Your task to perform on an android device: Show me popular games on the Play Store Image 0: 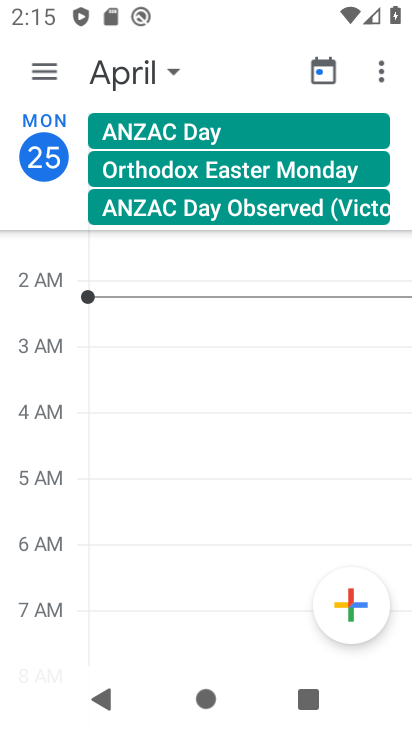
Step 0: press home button
Your task to perform on an android device: Show me popular games on the Play Store Image 1: 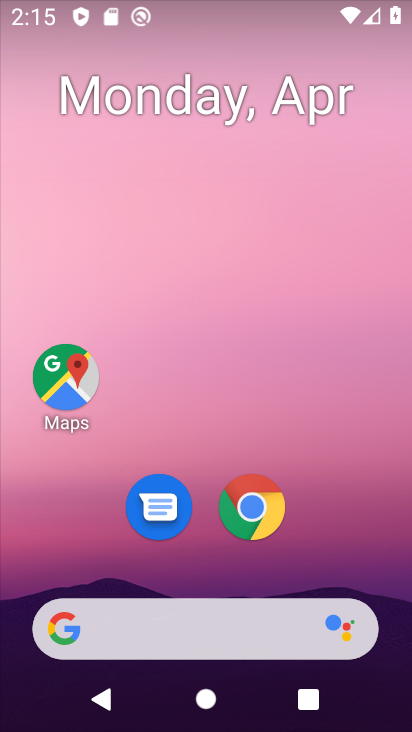
Step 1: drag from (377, 586) to (320, 145)
Your task to perform on an android device: Show me popular games on the Play Store Image 2: 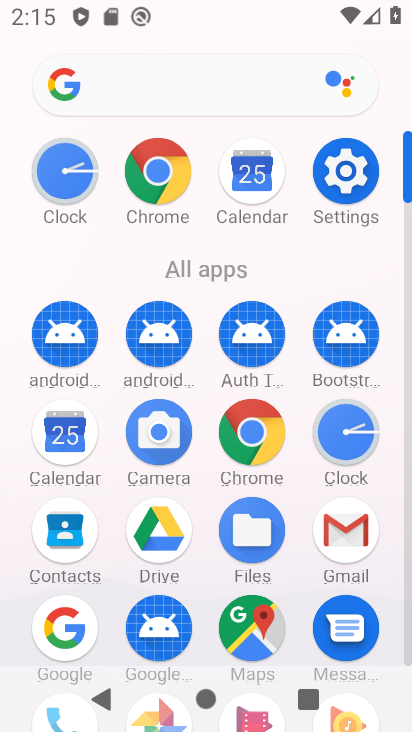
Step 2: click (406, 648)
Your task to perform on an android device: Show me popular games on the Play Store Image 3: 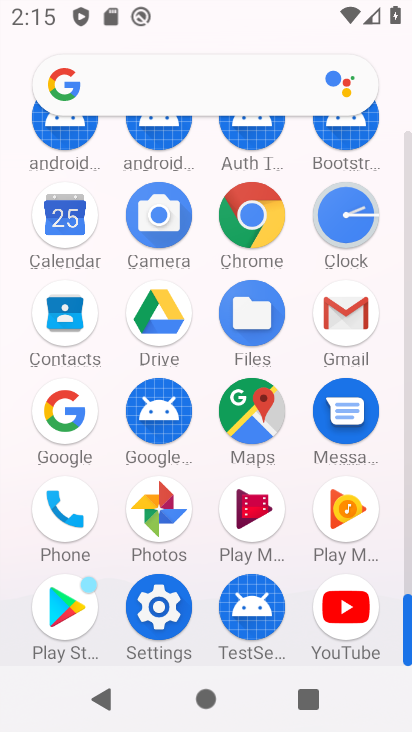
Step 3: click (69, 607)
Your task to perform on an android device: Show me popular games on the Play Store Image 4: 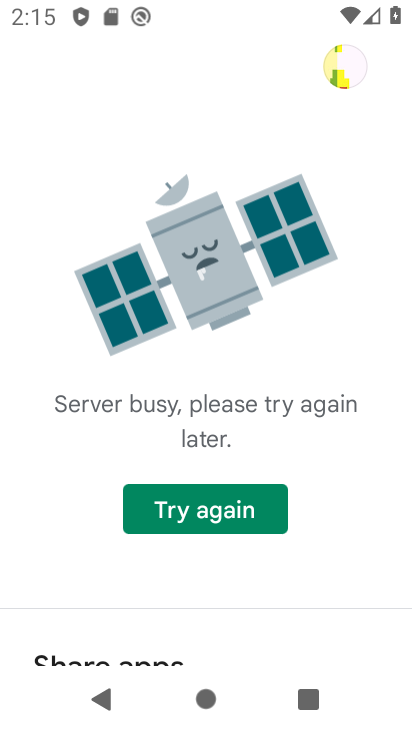
Step 4: click (191, 517)
Your task to perform on an android device: Show me popular games on the Play Store Image 5: 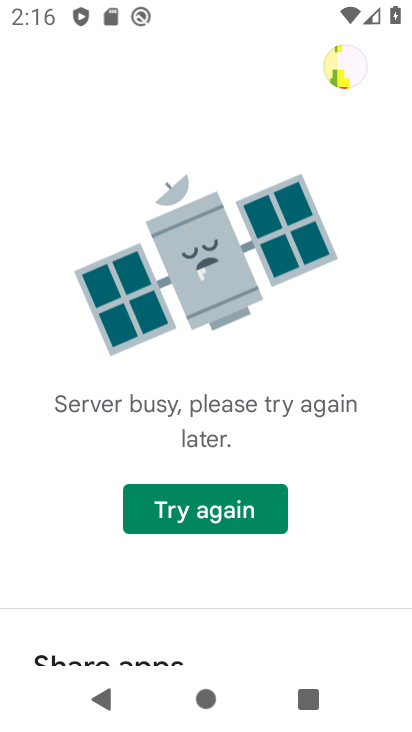
Step 5: task complete